Your task to perform on an android device: Turn off the flashlight Image 0: 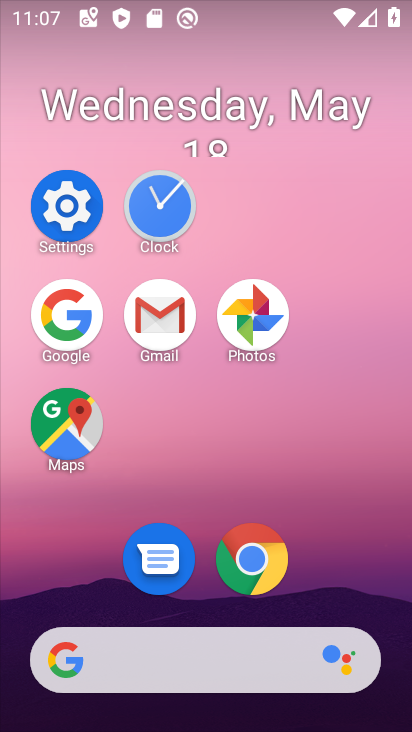
Step 0: drag from (272, 106) to (278, 367)
Your task to perform on an android device: Turn off the flashlight Image 1: 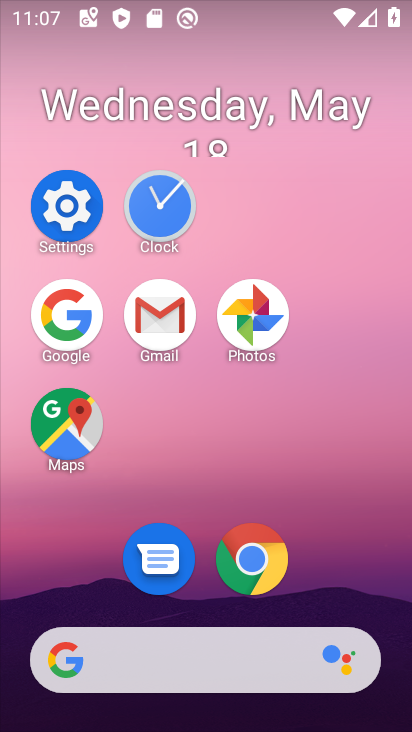
Step 1: task complete